Your task to perform on an android device: Go to Yahoo.com Image 0: 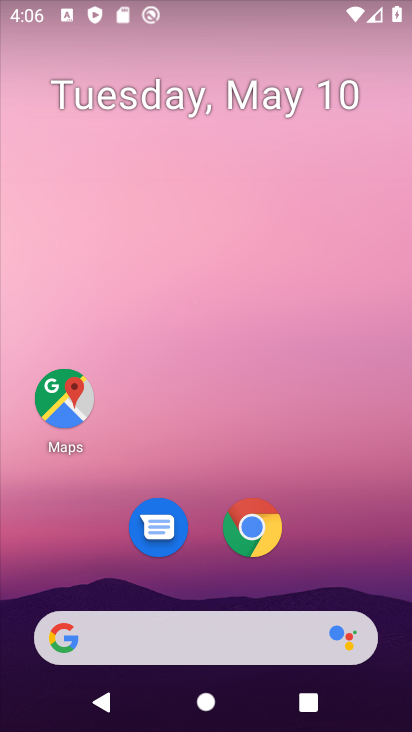
Step 0: click (278, 647)
Your task to perform on an android device: Go to Yahoo.com Image 1: 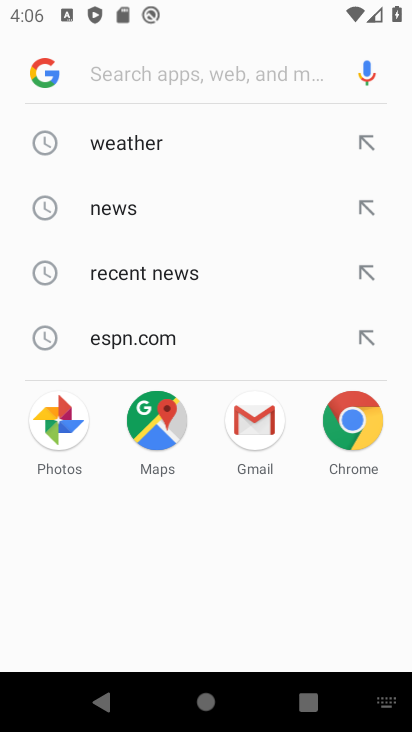
Step 1: type "yahoo.com"
Your task to perform on an android device: Go to Yahoo.com Image 2: 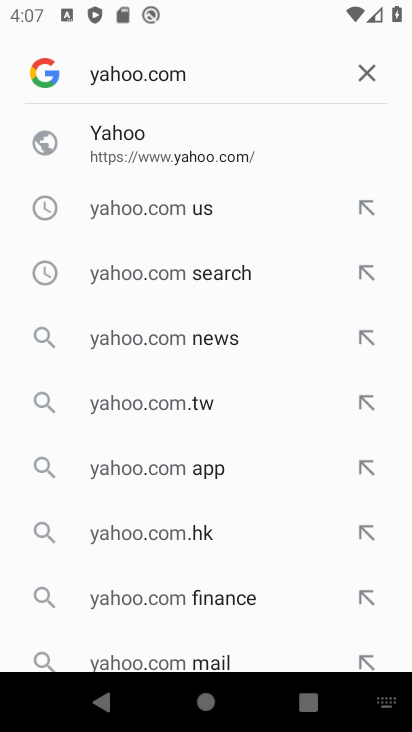
Step 2: click (112, 138)
Your task to perform on an android device: Go to Yahoo.com Image 3: 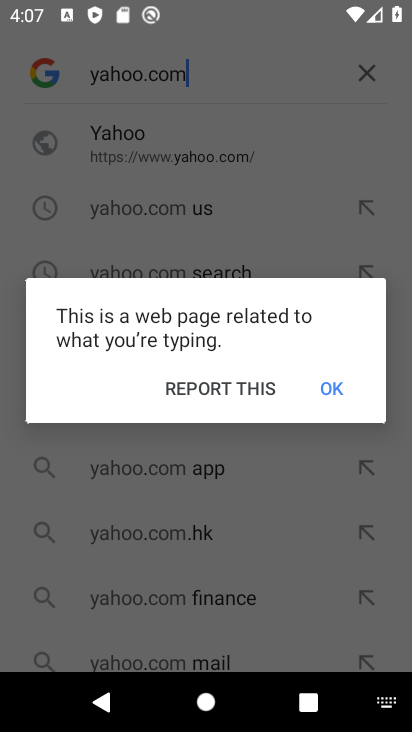
Step 3: click (327, 385)
Your task to perform on an android device: Go to Yahoo.com Image 4: 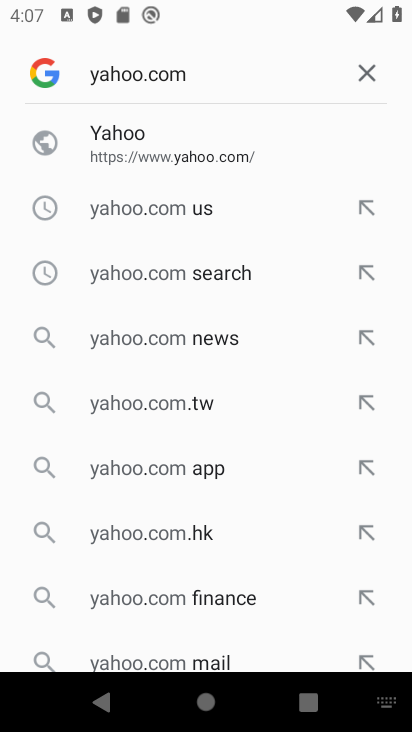
Step 4: click (88, 133)
Your task to perform on an android device: Go to Yahoo.com Image 5: 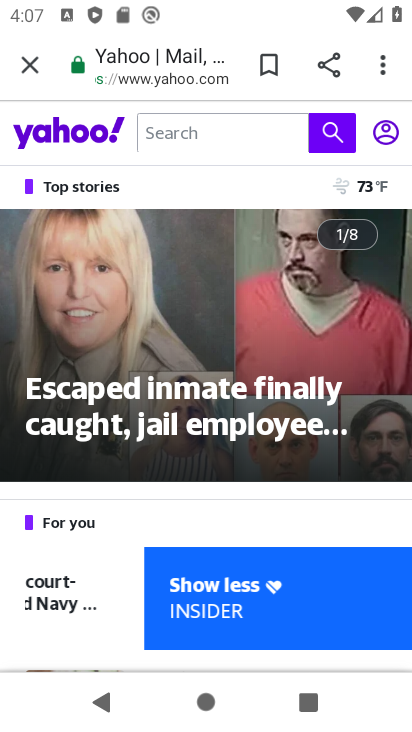
Step 5: task complete